Your task to perform on an android device: turn on notifications settings in the gmail app Image 0: 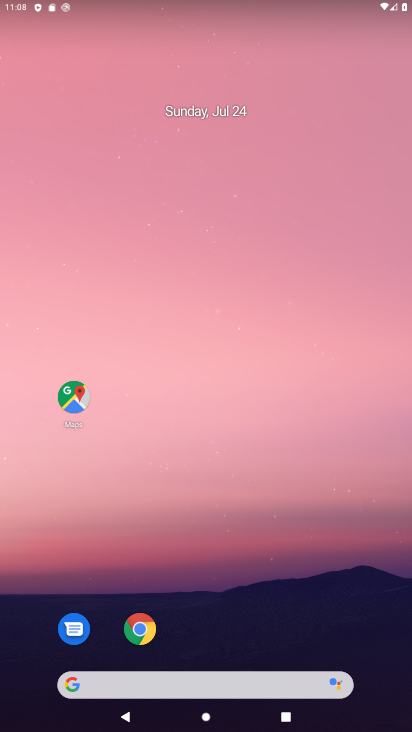
Step 0: drag from (263, 497) to (276, 112)
Your task to perform on an android device: turn on notifications settings in the gmail app Image 1: 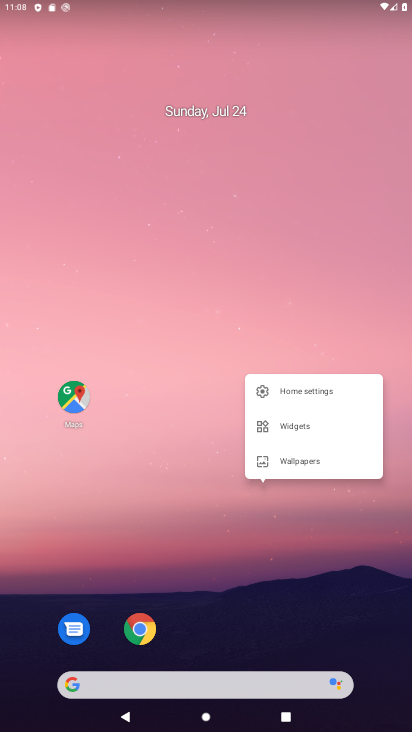
Step 1: drag from (207, 651) to (252, 169)
Your task to perform on an android device: turn on notifications settings in the gmail app Image 2: 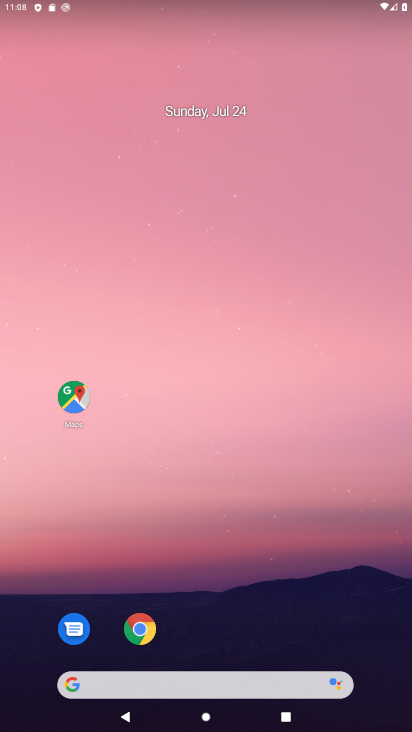
Step 2: drag from (223, 622) to (406, 27)
Your task to perform on an android device: turn on notifications settings in the gmail app Image 3: 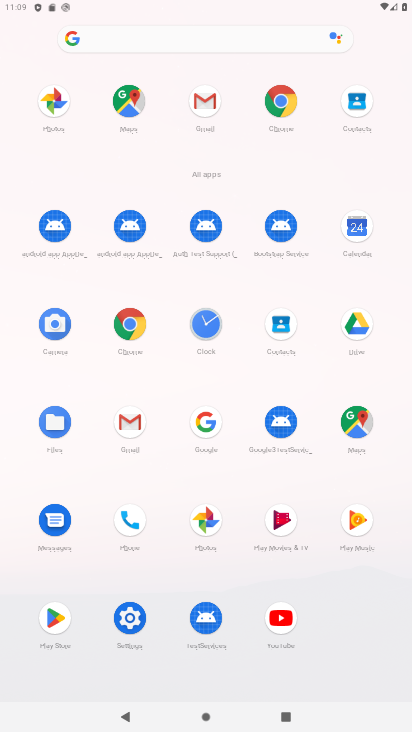
Step 3: click (221, 105)
Your task to perform on an android device: turn on notifications settings in the gmail app Image 4: 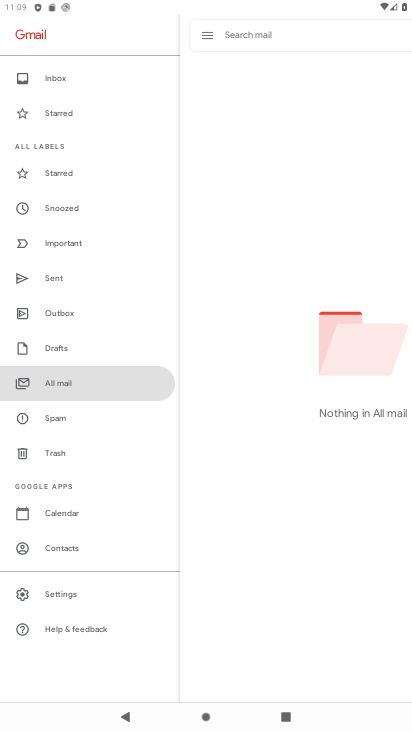
Step 4: click (79, 589)
Your task to perform on an android device: turn on notifications settings in the gmail app Image 5: 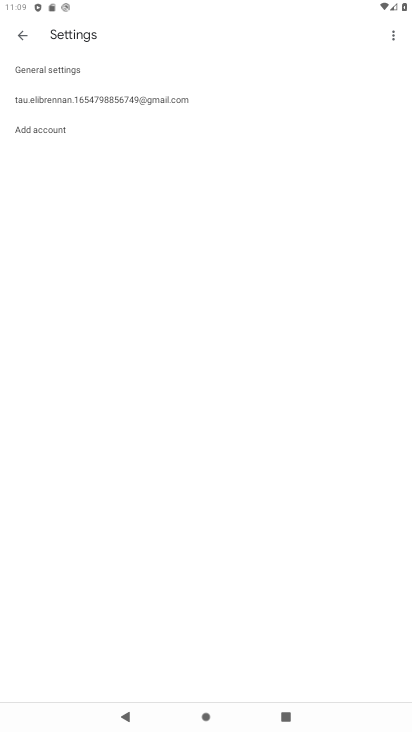
Step 5: click (206, 102)
Your task to perform on an android device: turn on notifications settings in the gmail app Image 6: 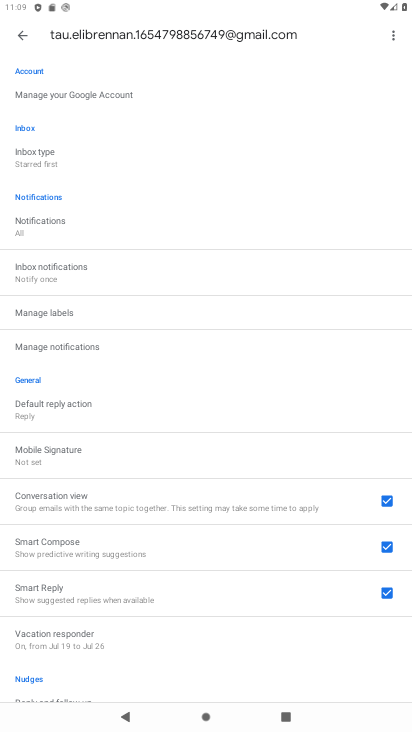
Step 6: click (114, 223)
Your task to perform on an android device: turn on notifications settings in the gmail app Image 7: 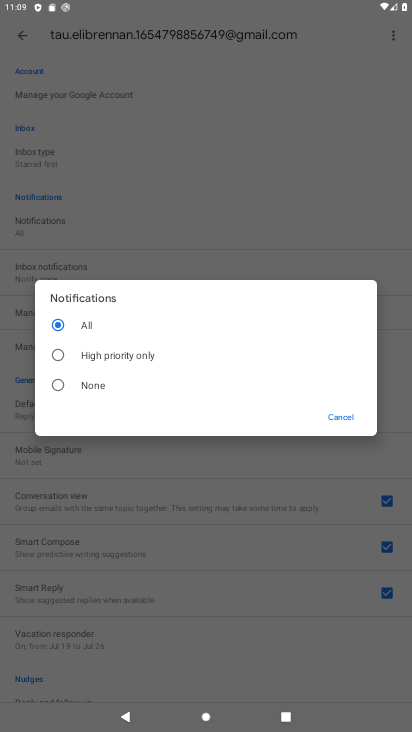
Step 7: click (148, 353)
Your task to perform on an android device: turn on notifications settings in the gmail app Image 8: 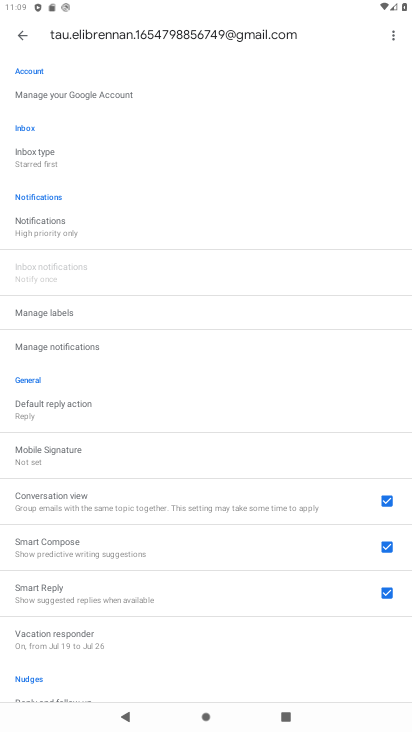
Step 8: task complete